Your task to perform on an android device: turn vacation reply on in the gmail app Image 0: 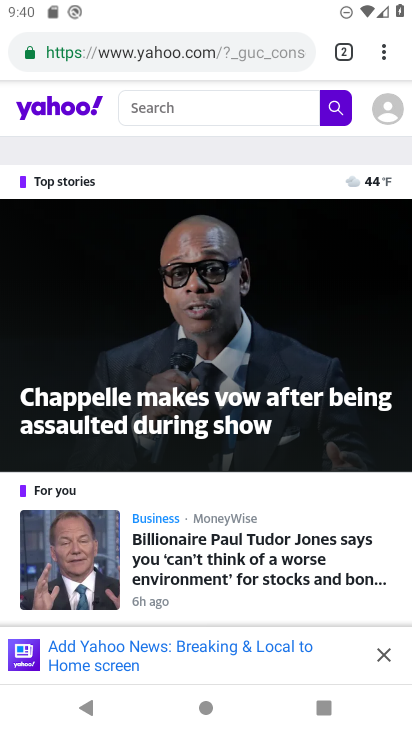
Step 0: press home button
Your task to perform on an android device: turn vacation reply on in the gmail app Image 1: 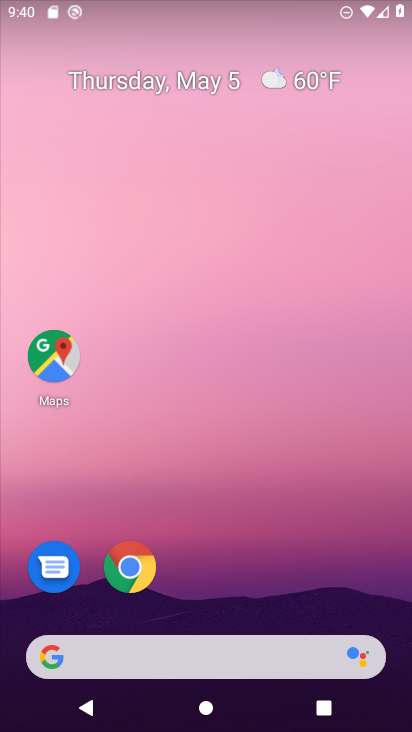
Step 1: drag from (219, 727) to (223, 187)
Your task to perform on an android device: turn vacation reply on in the gmail app Image 2: 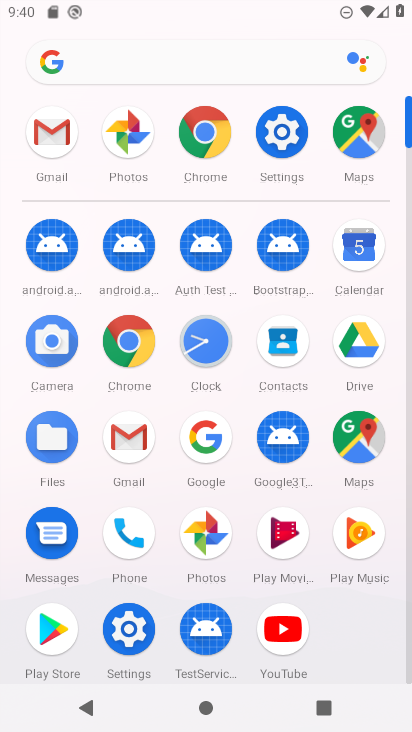
Step 2: click (126, 443)
Your task to perform on an android device: turn vacation reply on in the gmail app Image 3: 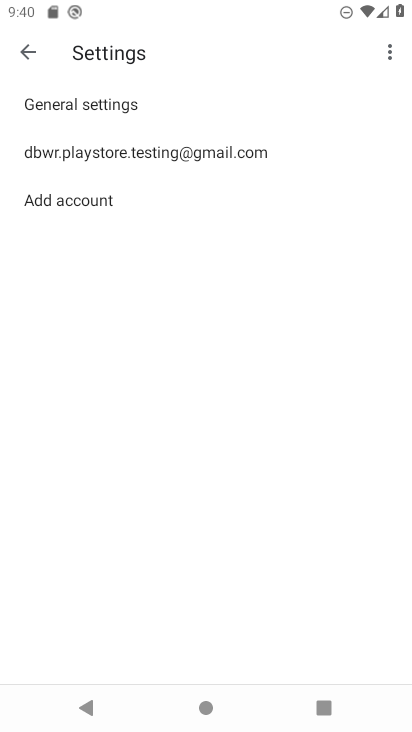
Step 3: click (25, 50)
Your task to perform on an android device: turn vacation reply on in the gmail app Image 4: 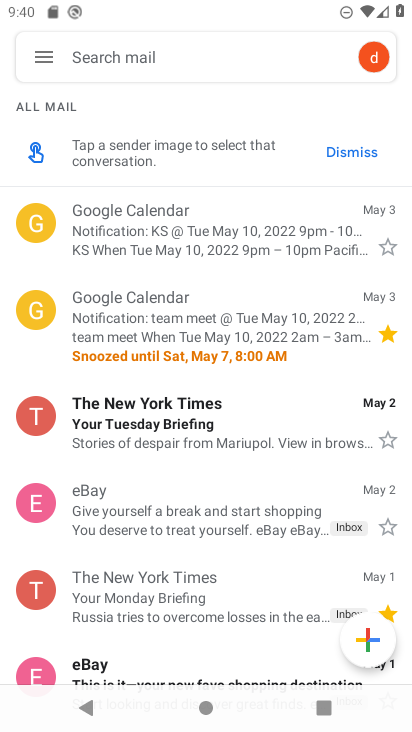
Step 4: click (47, 62)
Your task to perform on an android device: turn vacation reply on in the gmail app Image 5: 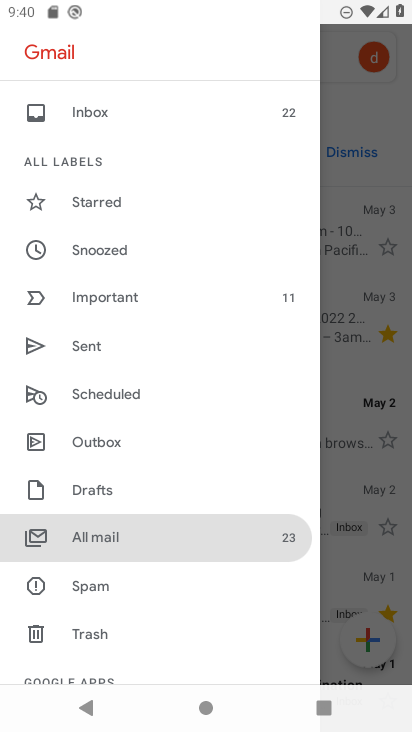
Step 5: drag from (144, 667) to (134, 220)
Your task to perform on an android device: turn vacation reply on in the gmail app Image 6: 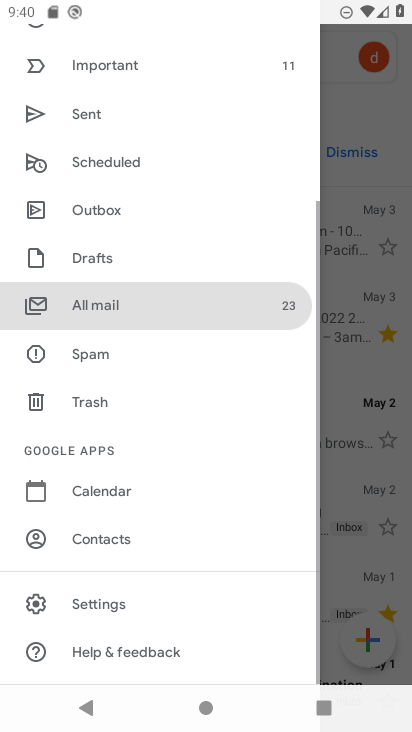
Step 6: click (106, 600)
Your task to perform on an android device: turn vacation reply on in the gmail app Image 7: 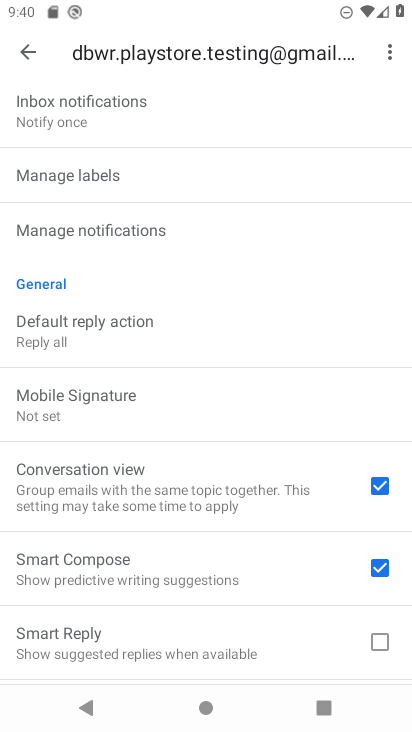
Step 7: drag from (108, 654) to (122, 442)
Your task to perform on an android device: turn vacation reply on in the gmail app Image 8: 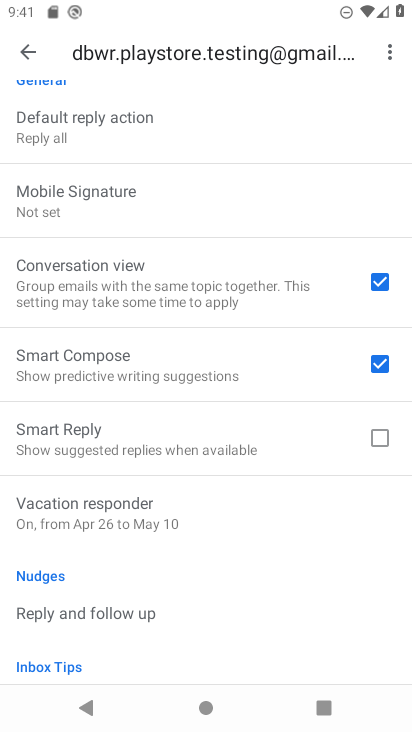
Step 8: click (379, 434)
Your task to perform on an android device: turn vacation reply on in the gmail app Image 9: 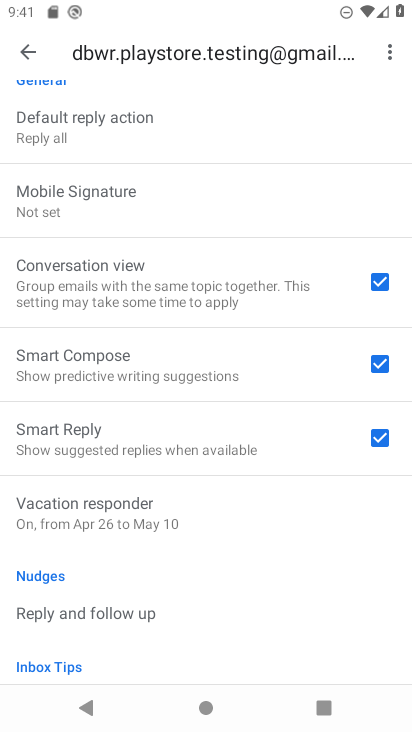
Step 9: task complete